Your task to perform on an android device: open app "DoorDash - Food Delivery" (install if not already installed) Image 0: 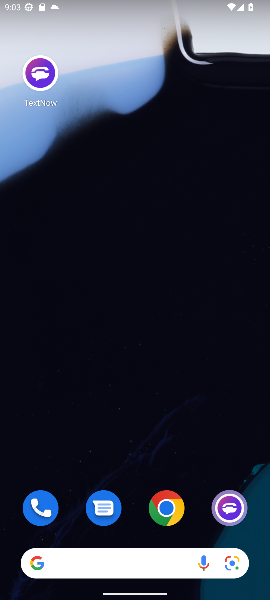
Step 0: drag from (53, 537) to (75, 226)
Your task to perform on an android device: open app "DoorDash - Food Delivery" (install if not already installed) Image 1: 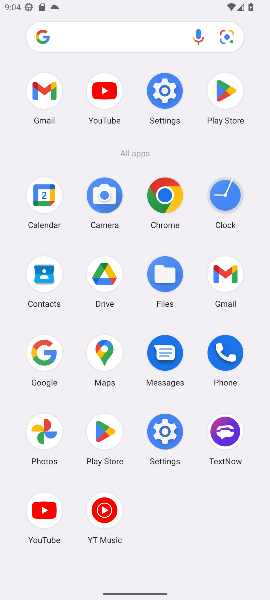
Step 1: click (227, 108)
Your task to perform on an android device: open app "DoorDash - Food Delivery" (install if not already installed) Image 2: 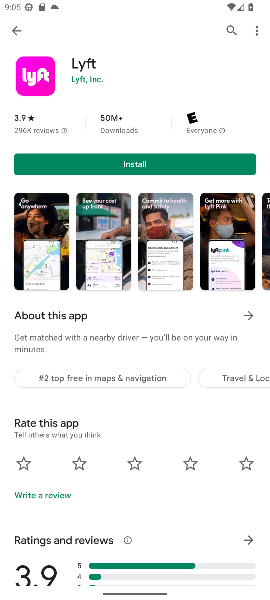
Step 2: click (16, 31)
Your task to perform on an android device: open app "DoorDash - Food Delivery" (install if not already installed) Image 3: 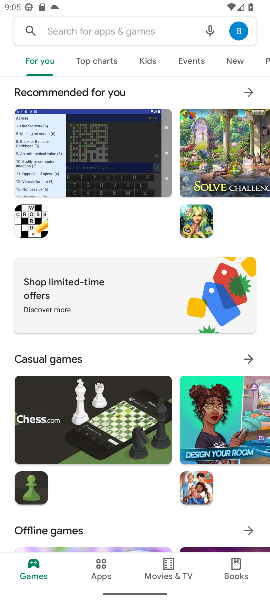
Step 3: click (94, 30)
Your task to perform on an android device: open app "DoorDash - Food Delivery" (install if not already installed) Image 4: 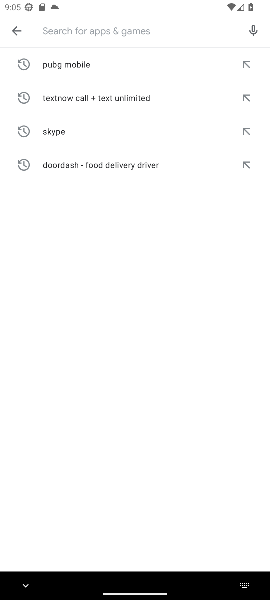
Step 4: type "DoorDash - Food Delivery"
Your task to perform on an android device: open app "DoorDash - Food Delivery" (install if not already installed) Image 5: 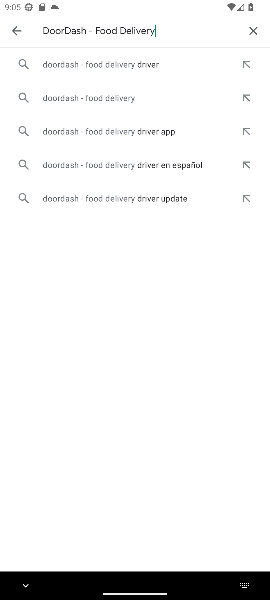
Step 5: click (142, 66)
Your task to perform on an android device: open app "DoorDash - Food Delivery" (install if not already installed) Image 6: 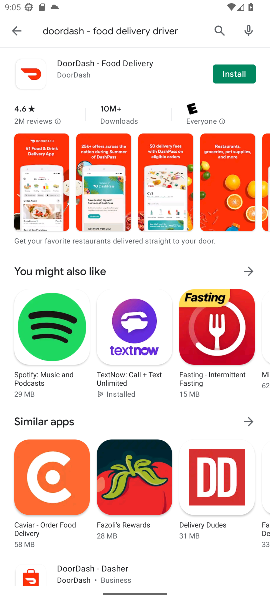
Step 6: click (236, 77)
Your task to perform on an android device: open app "DoorDash - Food Delivery" (install if not already installed) Image 7: 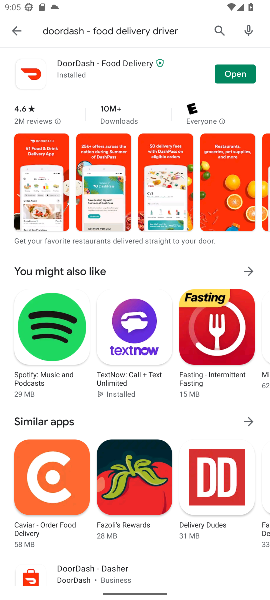
Step 7: click (236, 77)
Your task to perform on an android device: open app "DoorDash - Food Delivery" (install if not already installed) Image 8: 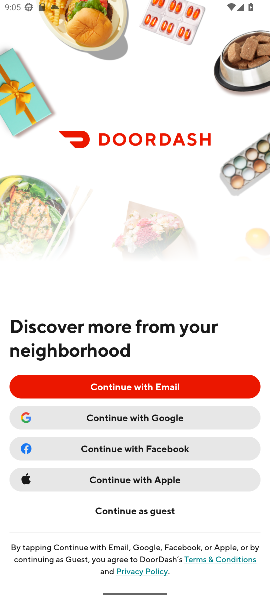
Step 8: task complete